Your task to perform on an android device: Open Android settings Image 0: 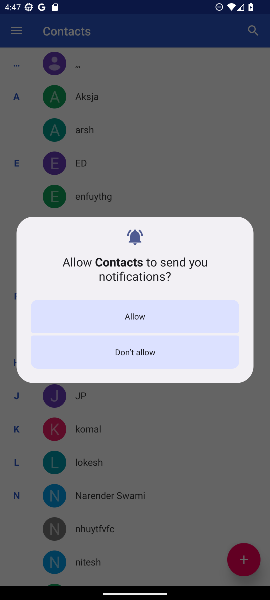
Step 0: press home button
Your task to perform on an android device: Open Android settings Image 1: 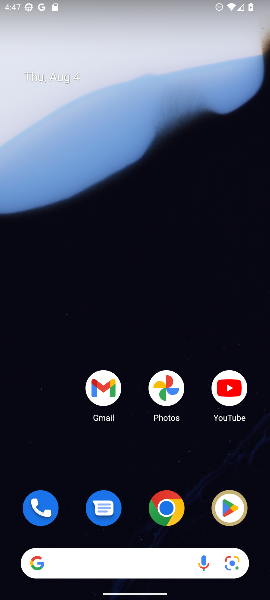
Step 1: drag from (48, 543) to (194, 12)
Your task to perform on an android device: Open Android settings Image 2: 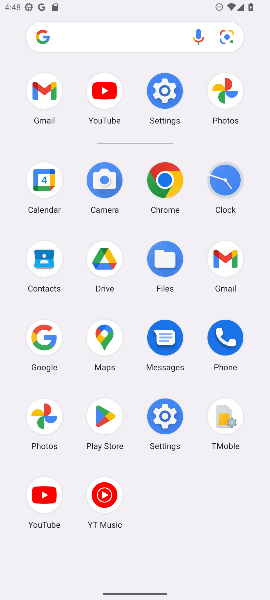
Step 2: click (171, 400)
Your task to perform on an android device: Open Android settings Image 3: 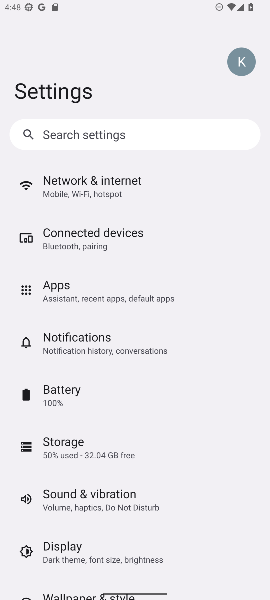
Step 3: drag from (90, 511) to (228, 19)
Your task to perform on an android device: Open Android settings Image 4: 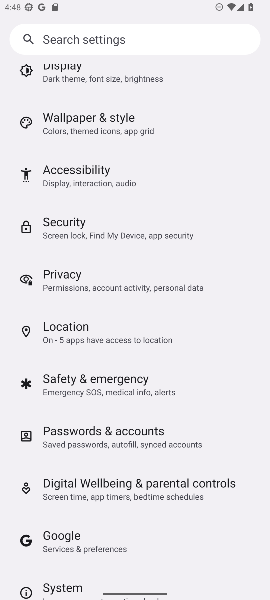
Step 4: drag from (82, 463) to (131, 16)
Your task to perform on an android device: Open Android settings Image 5: 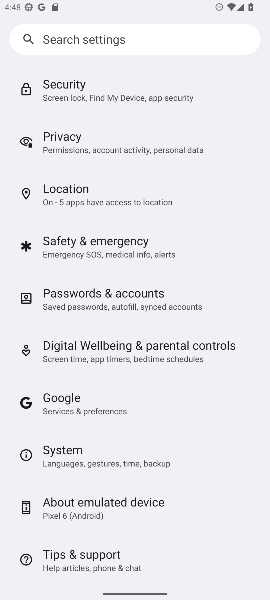
Step 5: drag from (93, 484) to (129, 276)
Your task to perform on an android device: Open Android settings Image 6: 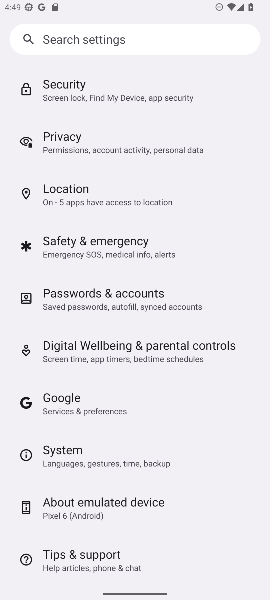
Step 6: click (59, 515)
Your task to perform on an android device: Open Android settings Image 7: 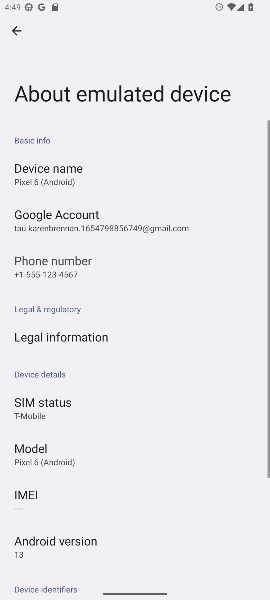
Step 7: drag from (115, 449) to (214, 163)
Your task to perform on an android device: Open Android settings Image 8: 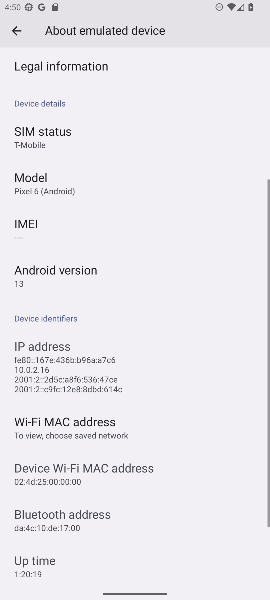
Step 8: click (65, 134)
Your task to perform on an android device: Open Android settings Image 9: 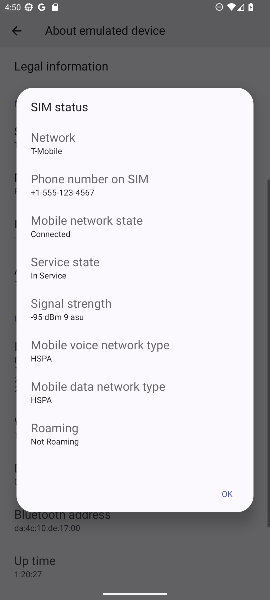
Step 9: click (58, 194)
Your task to perform on an android device: Open Android settings Image 10: 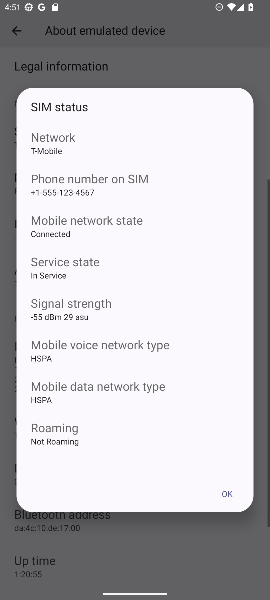
Step 10: drag from (124, 387) to (171, 79)
Your task to perform on an android device: Open Android settings Image 11: 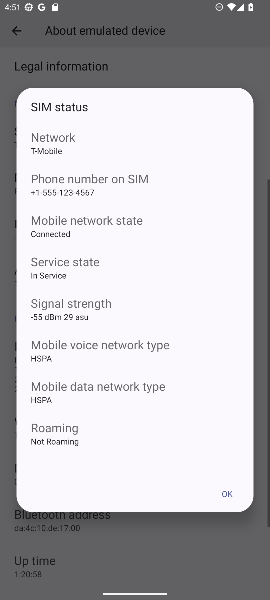
Step 11: click (225, 488)
Your task to perform on an android device: Open Android settings Image 12: 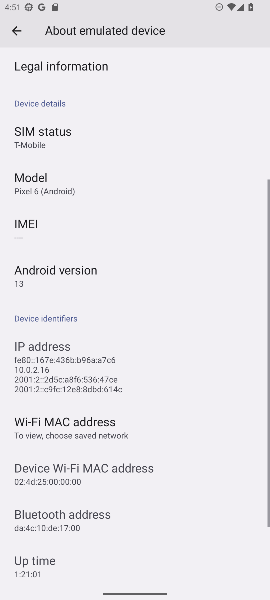
Step 12: click (61, 281)
Your task to perform on an android device: Open Android settings Image 13: 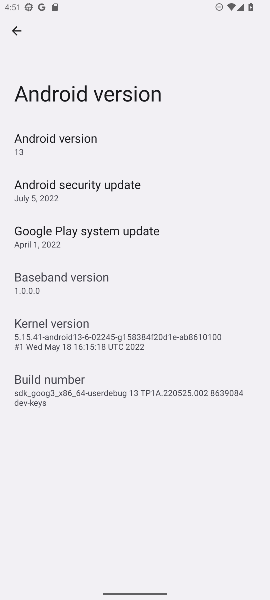
Step 13: click (52, 129)
Your task to perform on an android device: Open Android settings Image 14: 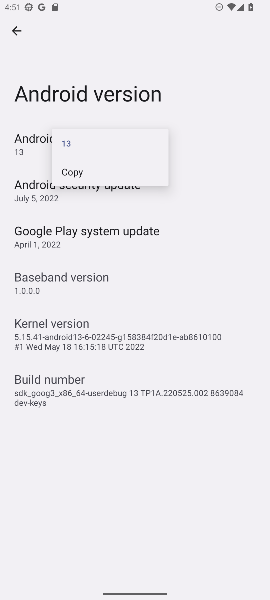
Step 14: task complete